Your task to perform on an android device: Open Android settings Image 0: 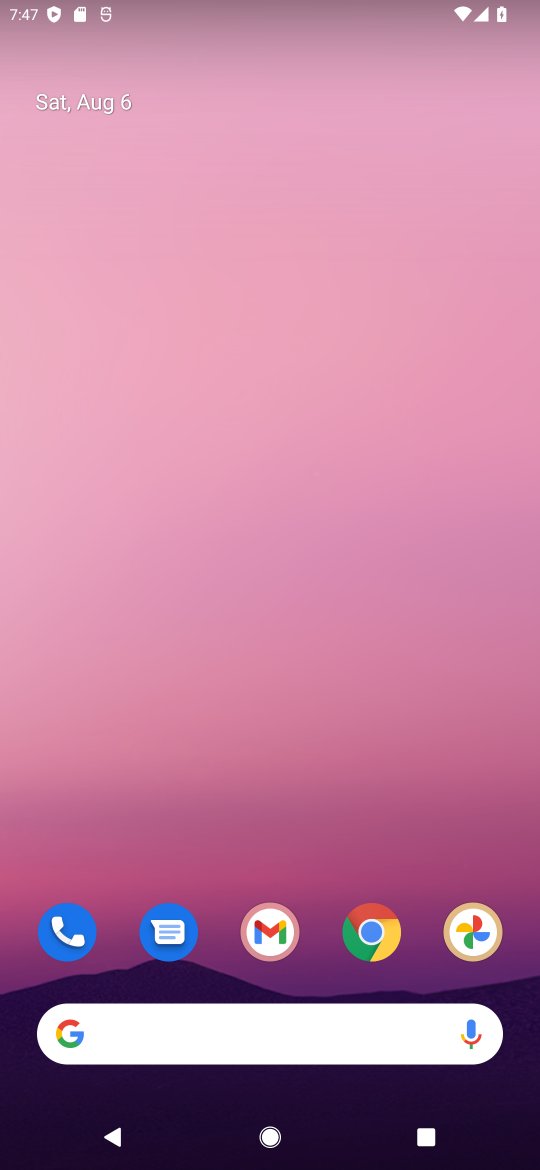
Step 0: press home button
Your task to perform on an android device: Open Android settings Image 1: 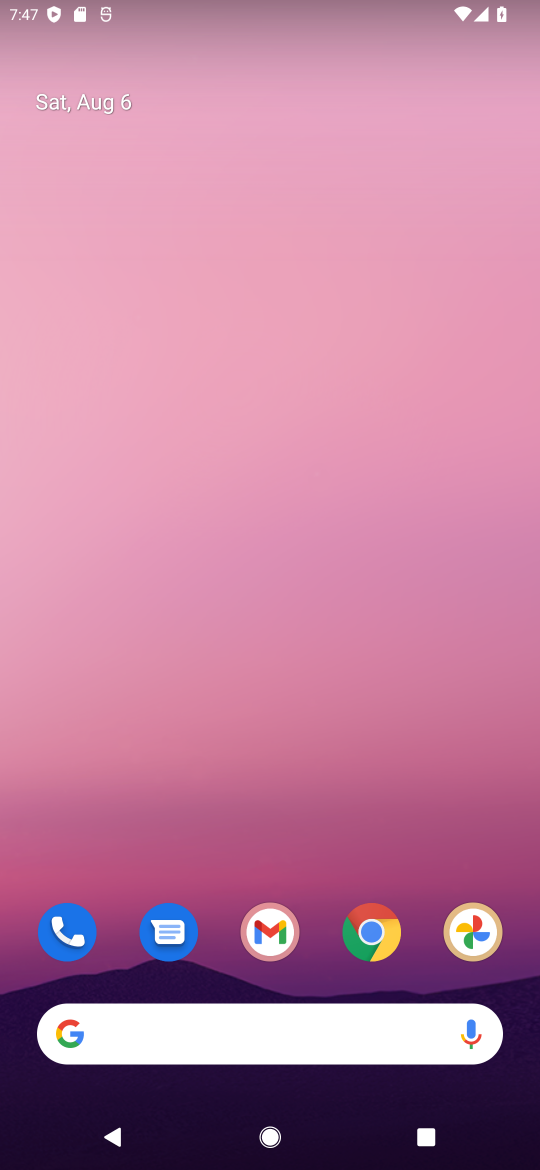
Step 1: drag from (264, 1031) to (437, 413)
Your task to perform on an android device: Open Android settings Image 2: 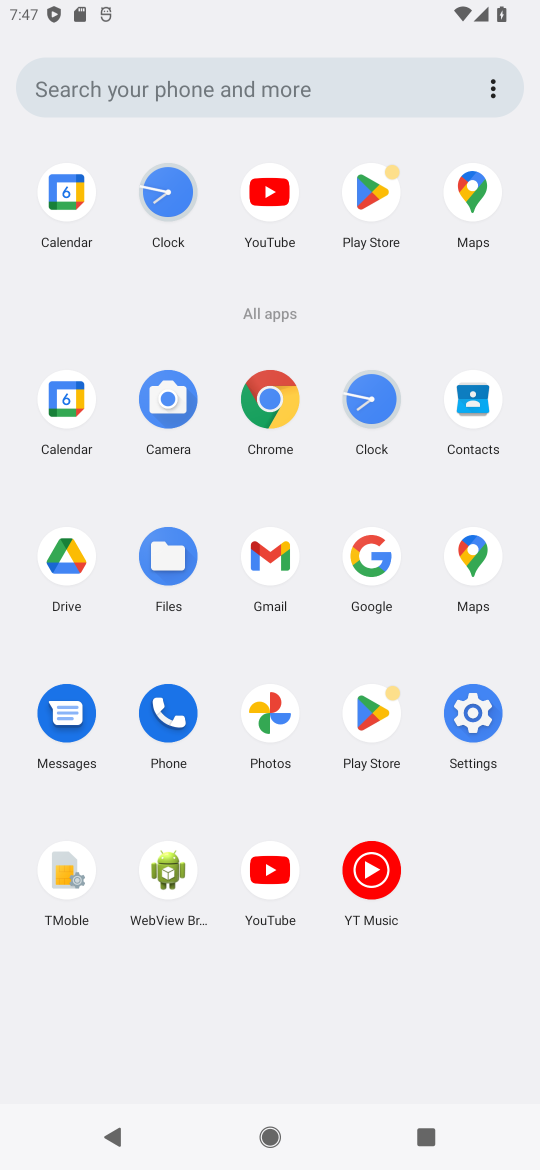
Step 2: click (482, 709)
Your task to perform on an android device: Open Android settings Image 3: 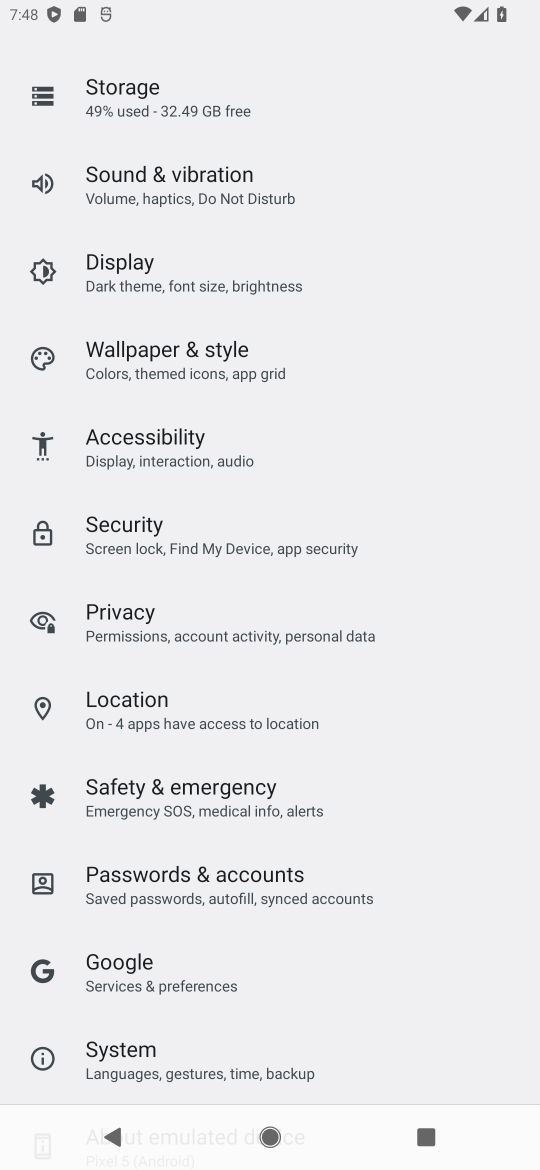
Step 3: task complete